Your task to perform on an android device: Open wifi settings Image 0: 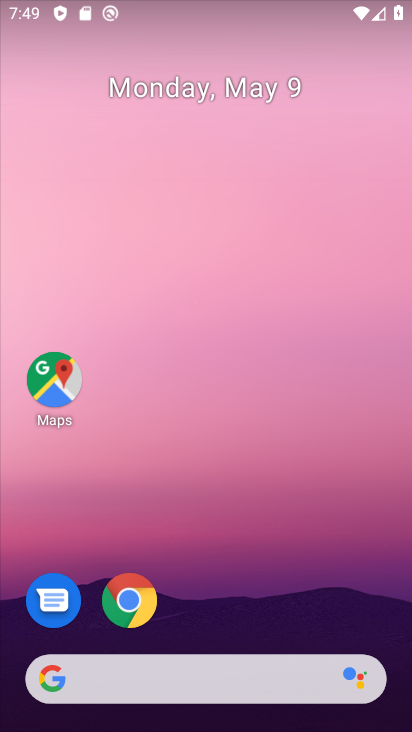
Step 0: drag from (241, 569) to (179, 26)
Your task to perform on an android device: Open wifi settings Image 1: 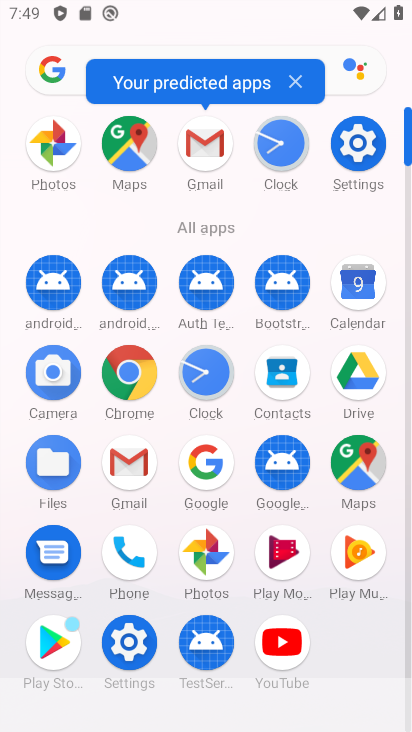
Step 1: drag from (7, 568) to (9, 243)
Your task to perform on an android device: Open wifi settings Image 2: 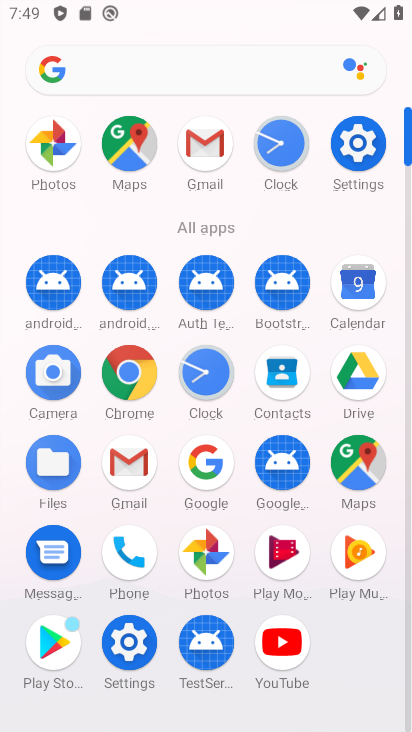
Step 2: click (354, 143)
Your task to perform on an android device: Open wifi settings Image 3: 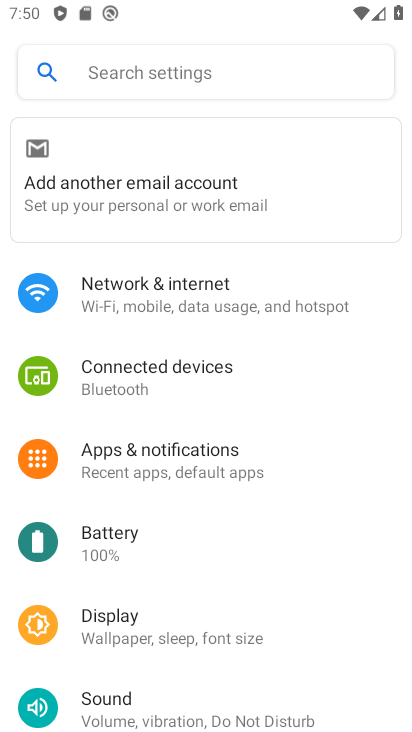
Step 3: click (128, 295)
Your task to perform on an android device: Open wifi settings Image 4: 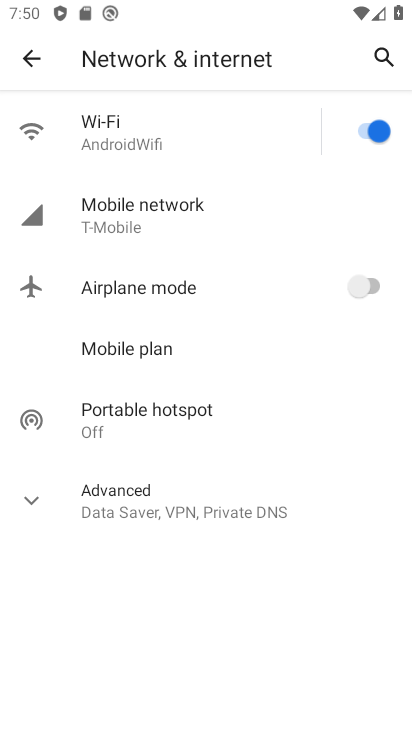
Step 4: click (152, 140)
Your task to perform on an android device: Open wifi settings Image 5: 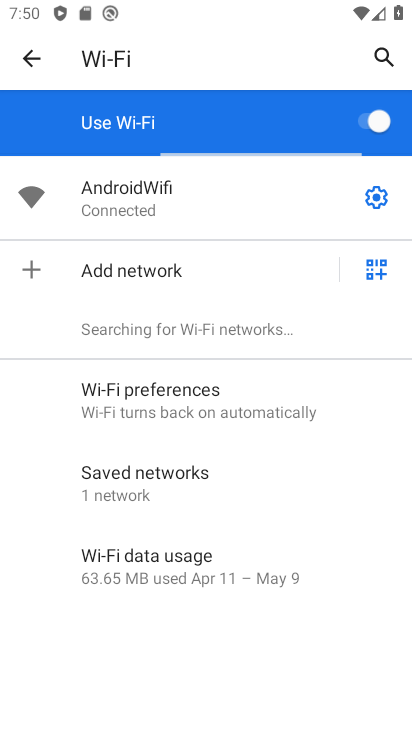
Step 5: task complete